Your task to perform on an android device: remove spam from my inbox in the gmail app Image 0: 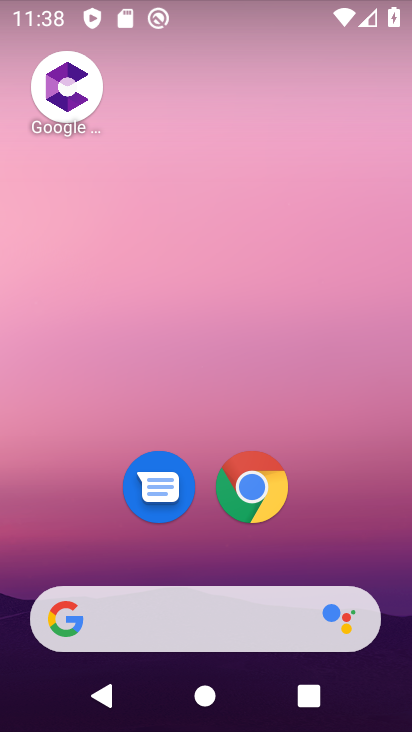
Step 0: drag from (267, 418) to (238, 194)
Your task to perform on an android device: remove spam from my inbox in the gmail app Image 1: 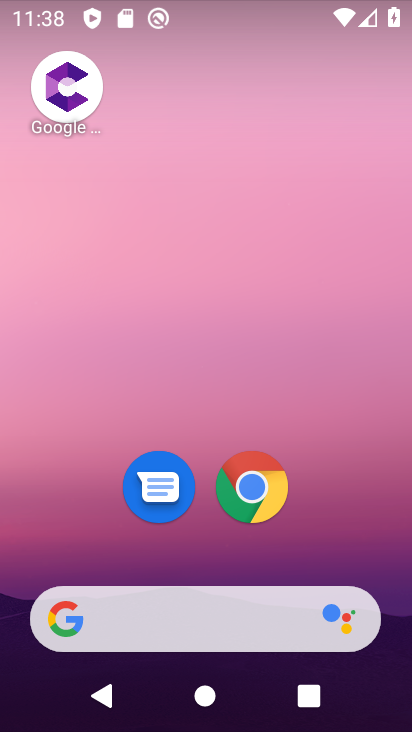
Step 1: drag from (331, 500) to (300, 205)
Your task to perform on an android device: remove spam from my inbox in the gmail app Image 2: 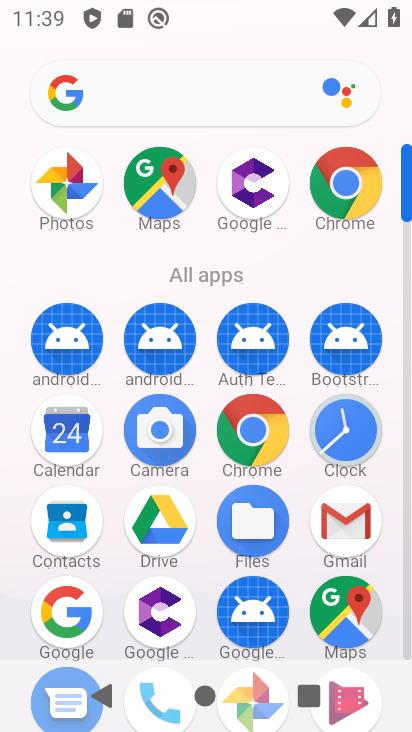
Step 2: click (336, 534)
Your task to perform on an android device: remove spam from my inbox in the gmail app Image 3: 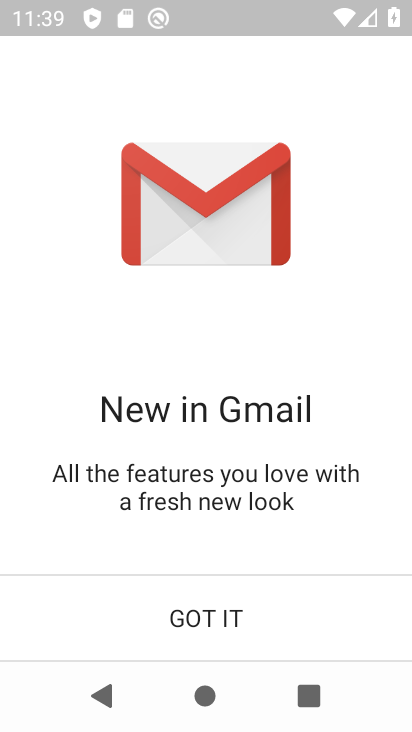
Step 3: click (254, 596)
Your task to perform on an android device: remove spam from my inbox in the gmail app Image 4: 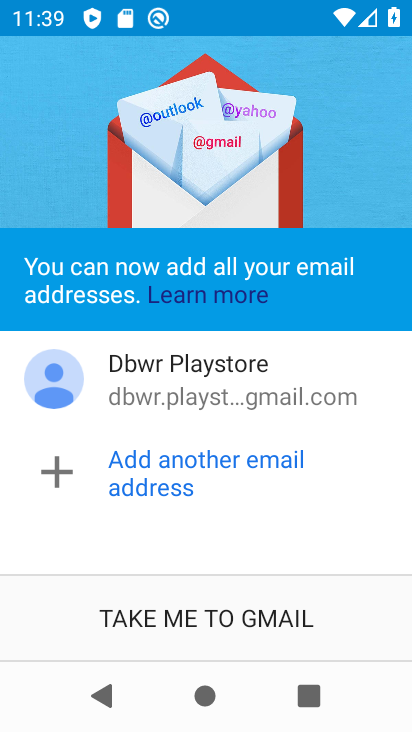
Step 4: click (232, 618)
Your task to perform on an android device: remove spam from my inbox in the gmail app Image 5: 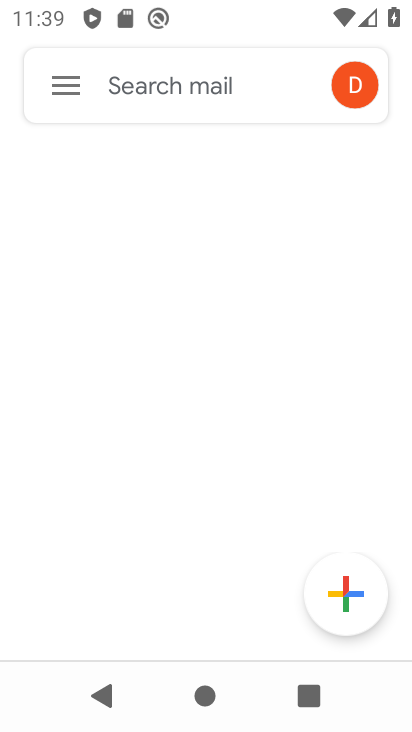
Step 5: click (70, 85)
Your task to perform on an android device: remove spam from my inbox in the gmail app Image 6: 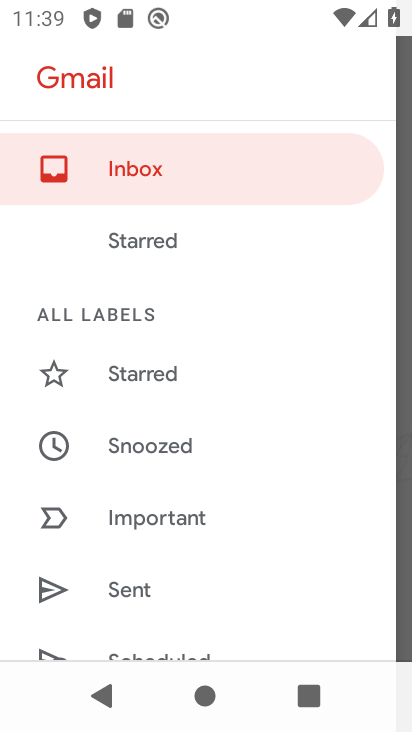
Step 6: drag from (285, 591) to (233, 205)
Your task to perform on an android device: remove spam from my inbox in the gmail app Image 7: 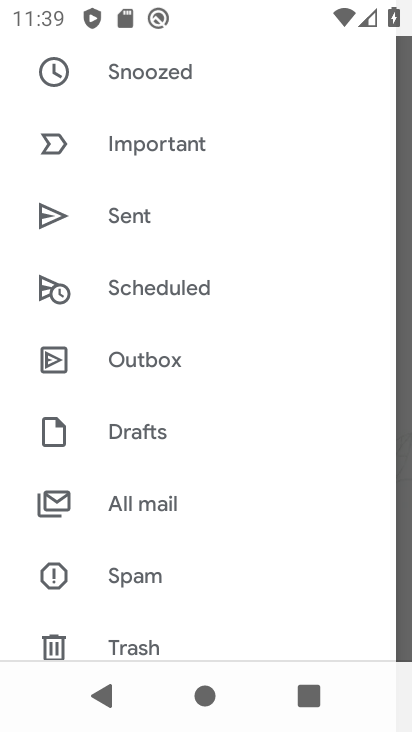
Step 7: click (138, 576)
Your task to perform on an android device: remove spam from my inbox in the gmail app Image 8: 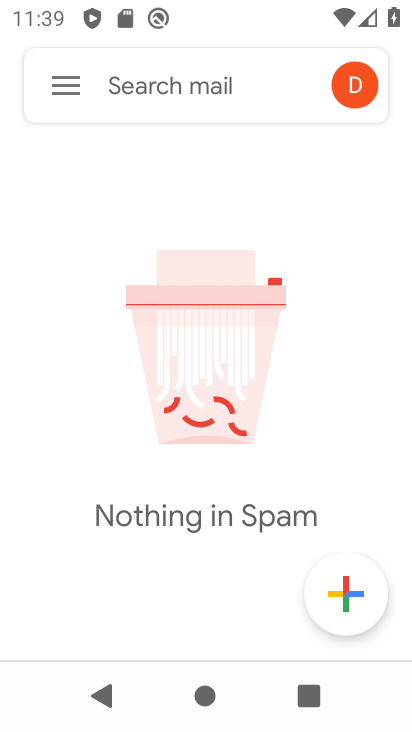
Step 8: task complete